Your task to perform on an android device: open chrome and create a bookmark for the current page Image 0: 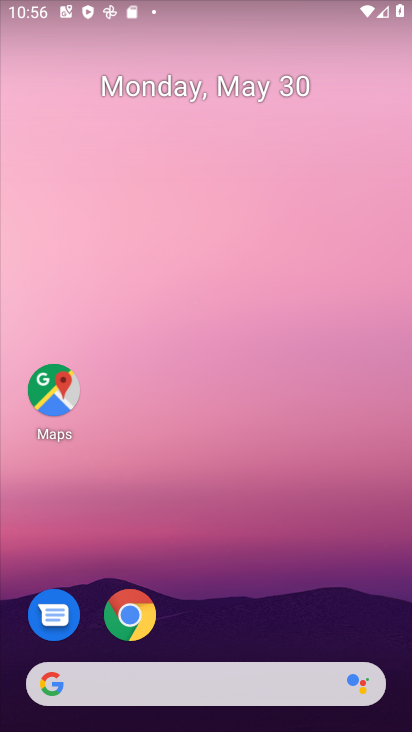
Step 0: click (133, 609)
Your task to perform on an android device: open chrome and create a bookmark for the current page Image 1: 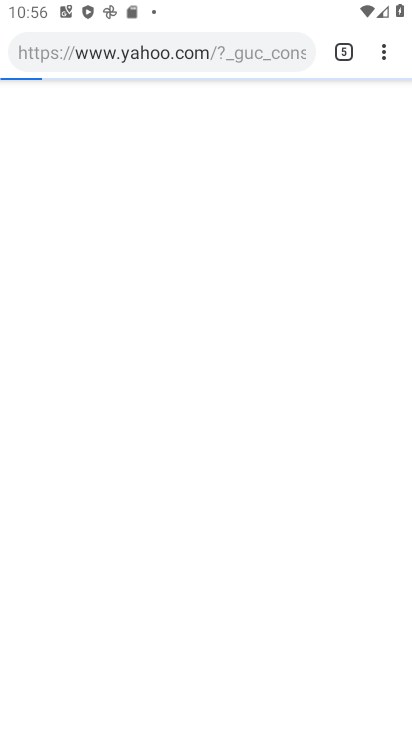
Step 1: click (385, 54)
Your task to perform on an android device: open chrome and create a bookmark for the current page Image 2: 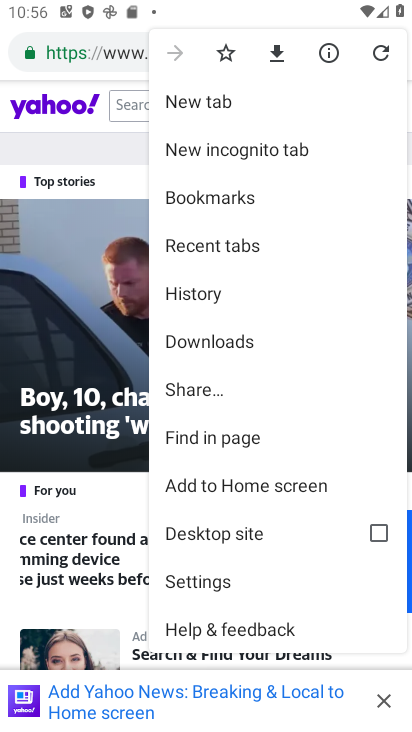
Step 2: click (244, 207)
Your task to perform on an android device: open chrome and create a bookmark for the current page Image 3: 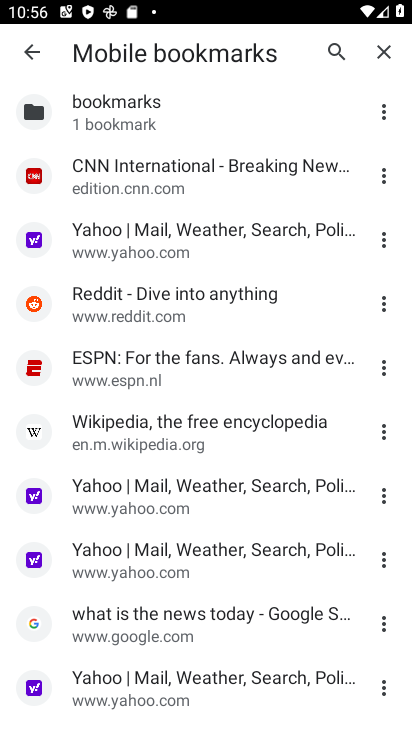
Step 3: click (193, 239)
Your task to perform on an android device: open chrome and create a bookmark for the current page Image 4: 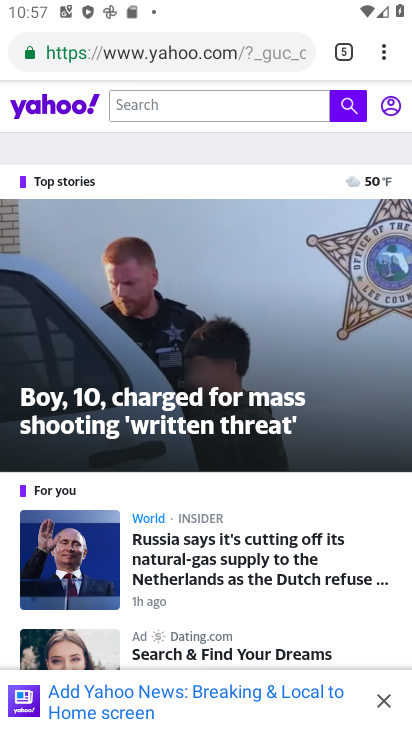
Step 4: task complete